Your task to perform on an android device: Open Google Chrome and click the shortcut for Amazon.com Image 0: 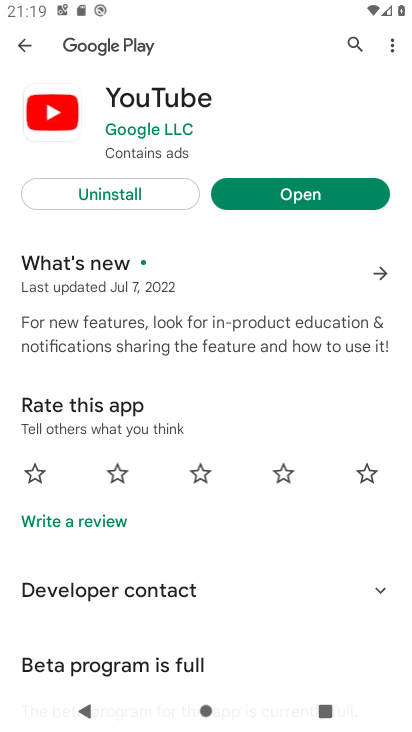
Step 0: press home button
Your task to perform on an android device: Open Google Chrome and click the shortcut for Amazon.com Image 1: 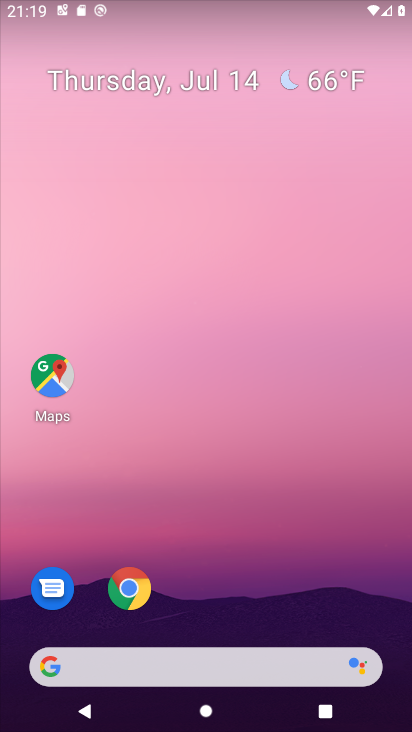
Step 1: drag from (330, 608) to (349, 78)
Your task to perform on an android device: Open Google Chrome and click the shortcut for Amazon.com Image 2: 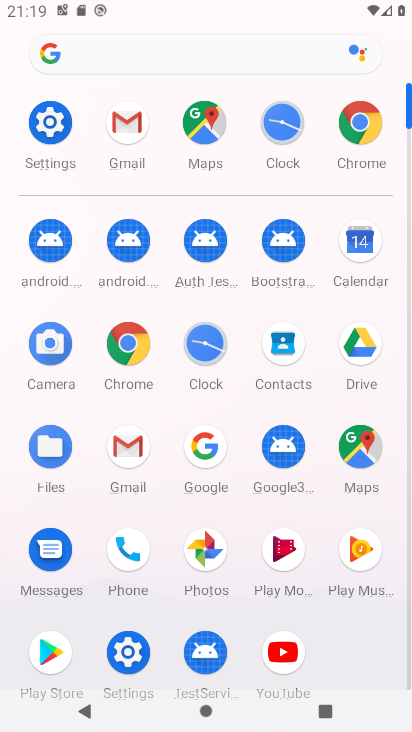
Step 2: click (129, 345)
Your task to perform on an android device: Open Google Chrome and click the shortcut for Amazon.com Image 3: 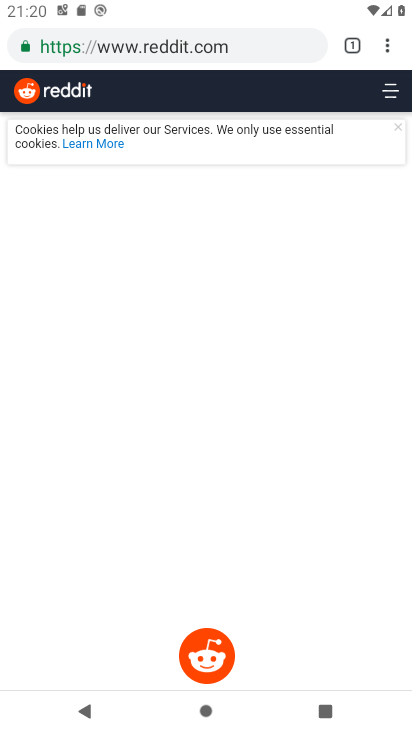
Step 3: press back button
Your task to perform on an android device: Open Google Chrome and click the shortcut for Amazon.com Image 4: 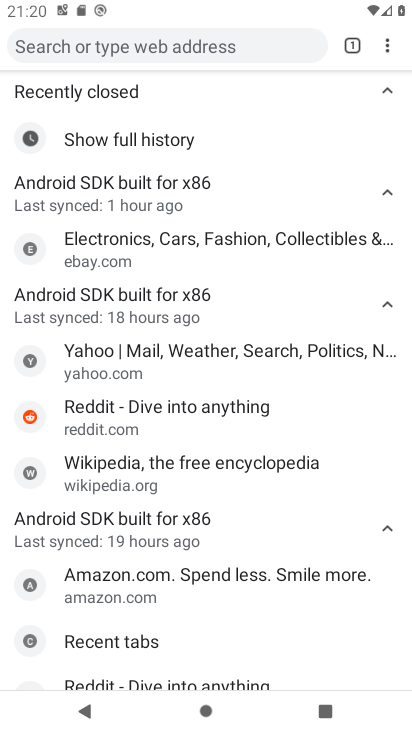
Step 4: press back button
Your task to perform on an android device: Open Google Chrome and click the shortcut for Amazon.com Image 5: 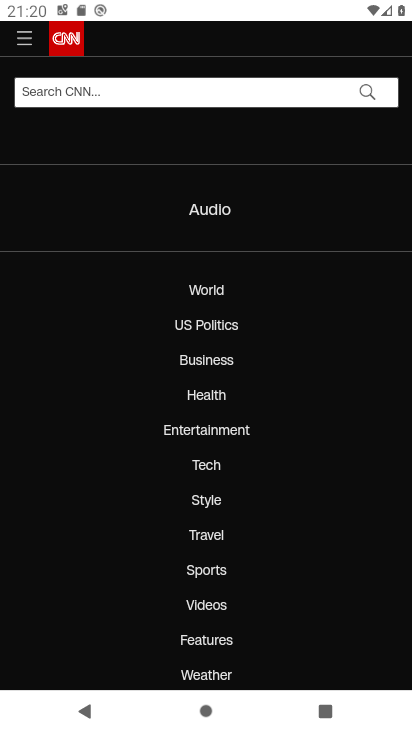
Step 5: press back button
Your task to perform on an android device: Open Google Chrome and click the shortcut for Amazon.com Image 6: 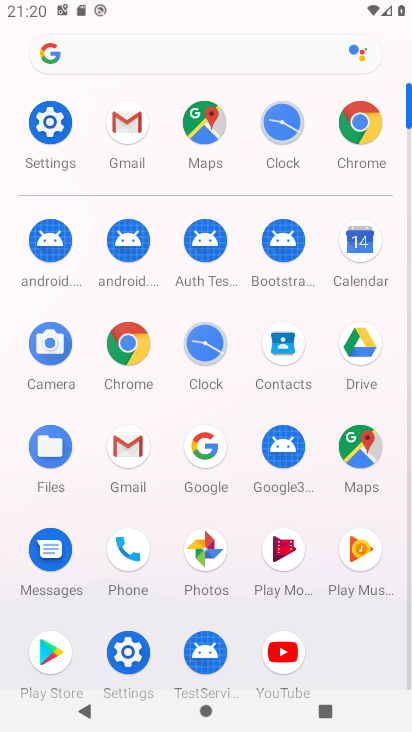
Step 6: click (145, 343)
Your task to perform on an android device: Open Google Chrome and click the shortcut for Amazon.com Image 7: 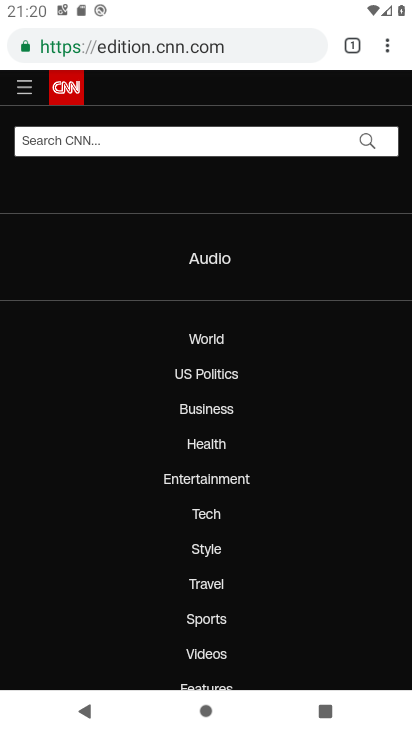
Step 7: press back button
Your task to perform on an android device: Open Google Chrome and click the shortcut for Amazon.com Image 8: 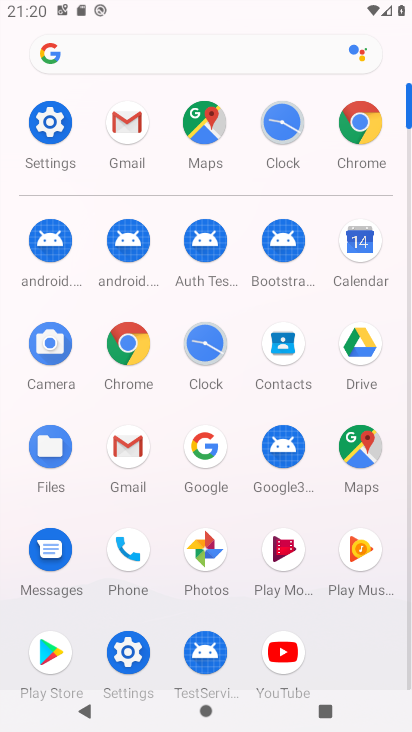
Step 8: click (138, 358)
Your task to perform on an android device: Open Google Chrome and click the shortcut for Amazon.com Image 9: 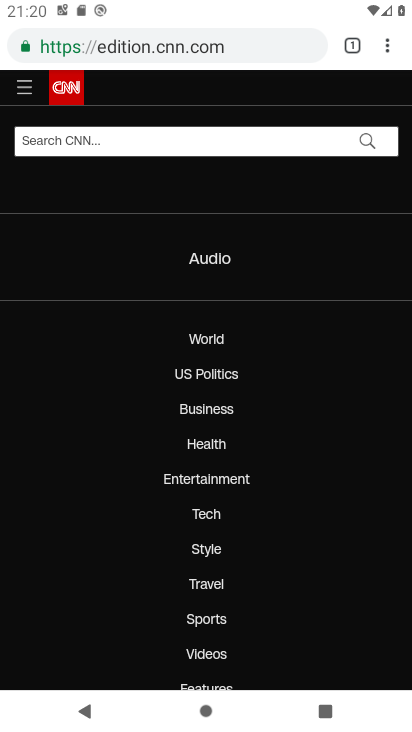
Step 9: task complete